Your task to perform on an android device: What's the price of the Vizio TV? Image 0: 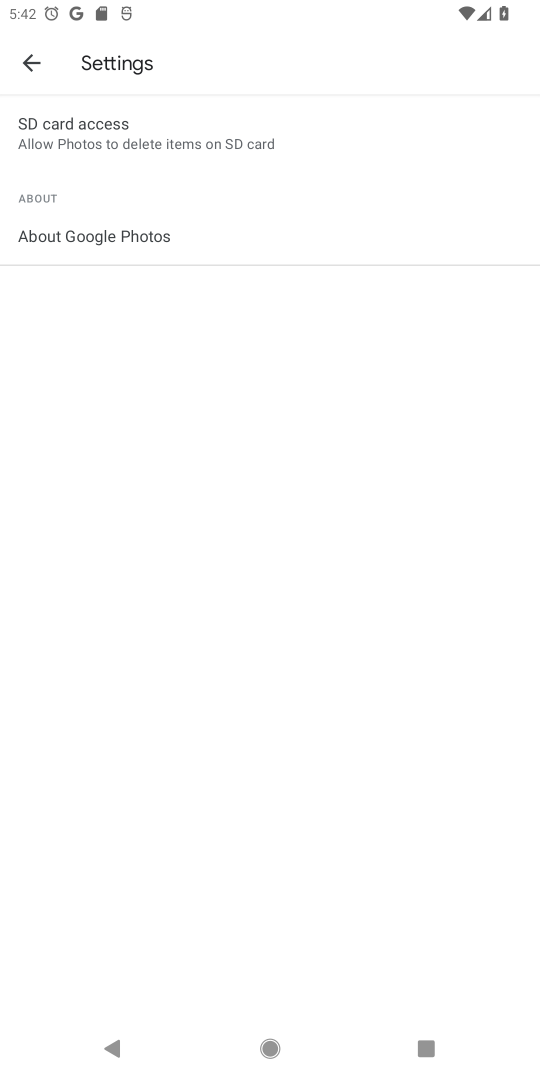
Step 0: press home button
Your task to perform on an android device: What's the price of the Vizio TV? Image 1: 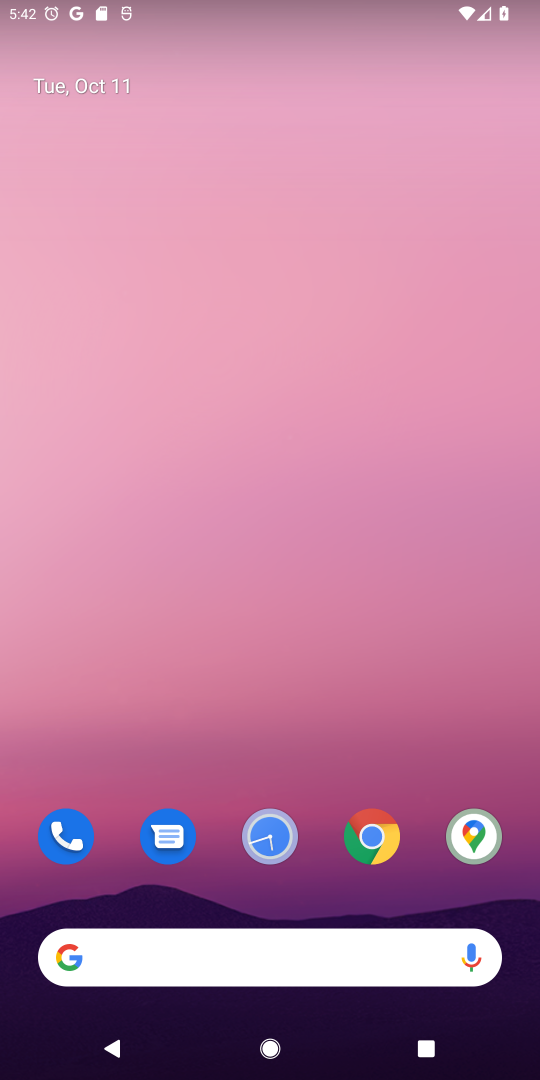
Step 1: click (157, 954)
Your task to perform on an android device: What's the price of the Vizio TV? Image 2: 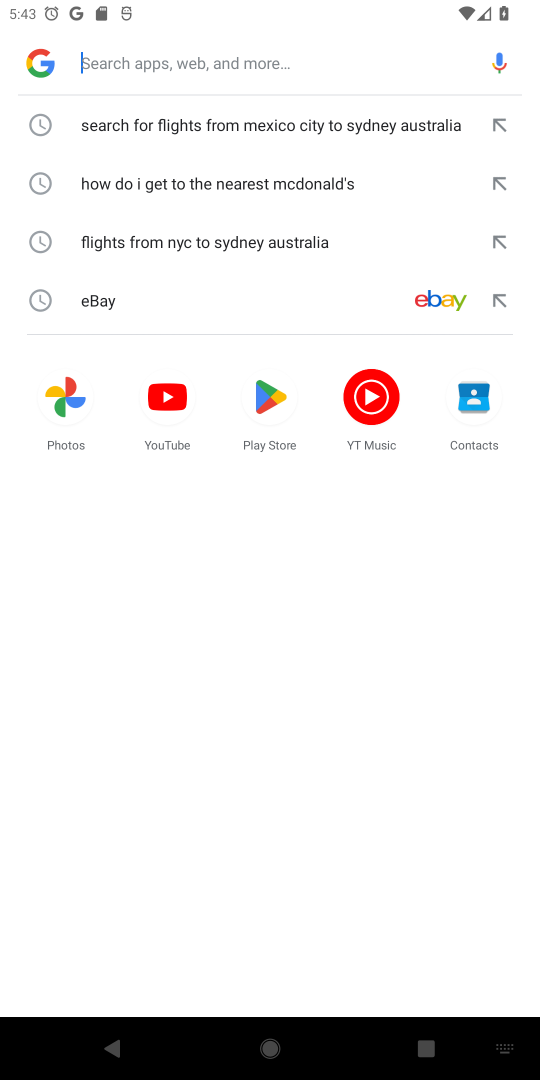
Step 2: type "the price of the Vizio TV"
Your task to perform on an android device: What's the price of the Vizio TV? Image 3: 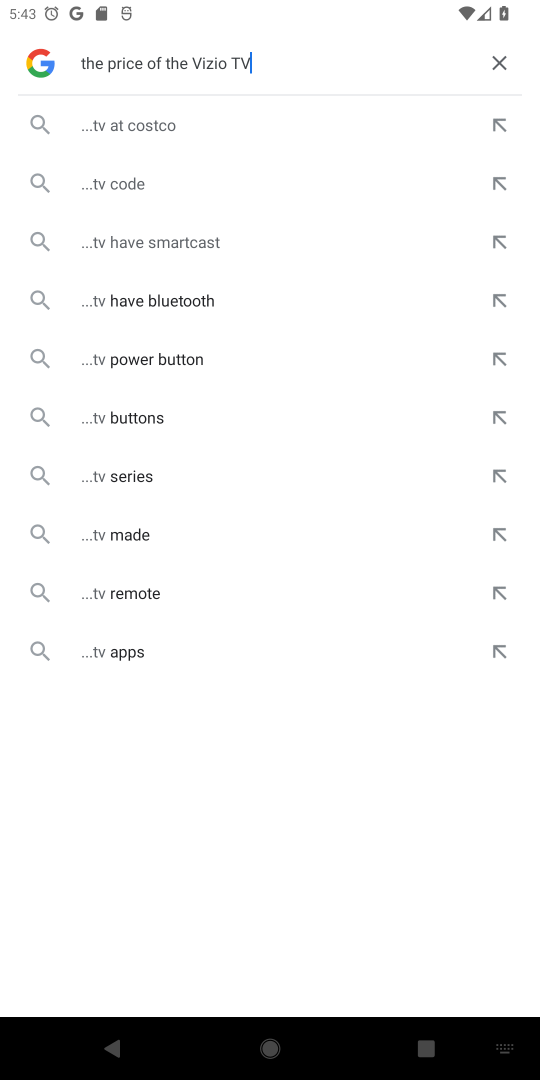
Step 3: click (183, 138)
Your task to perform on an android device: What's the price of the Vizio TV? Image 4: 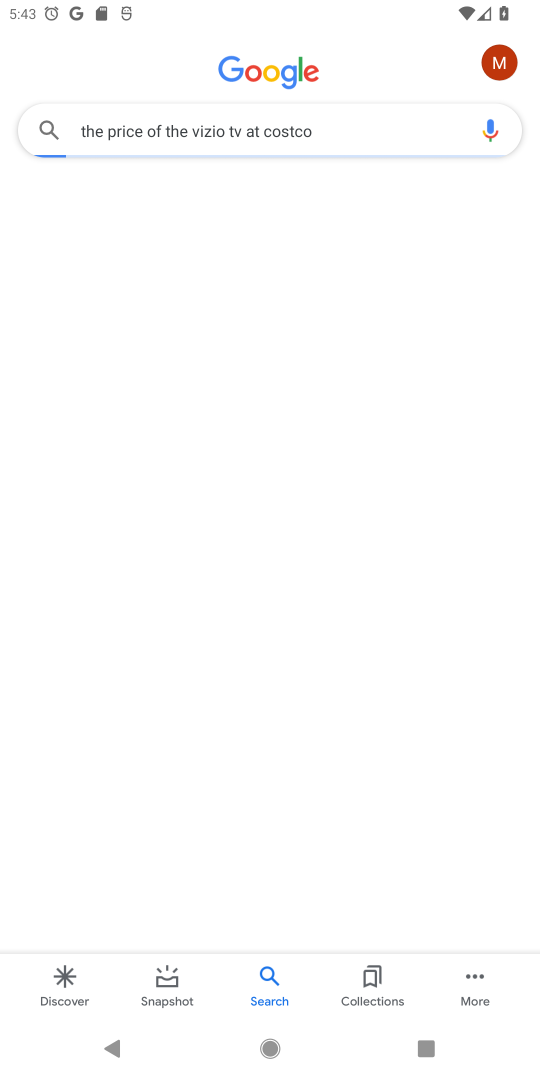
Step 4: click (183, 138)
Your task to perform on an android device: What's the price of the Vizio TV? Image 5: 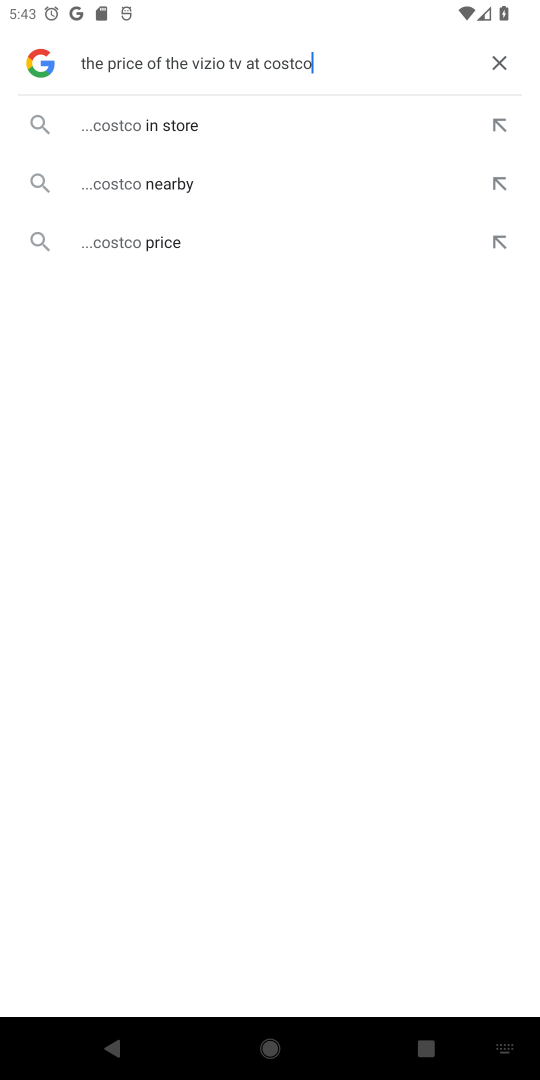
Step 5: task complete